Your task to perform on an android device: Play the last video I watched on Youtube Image 0: 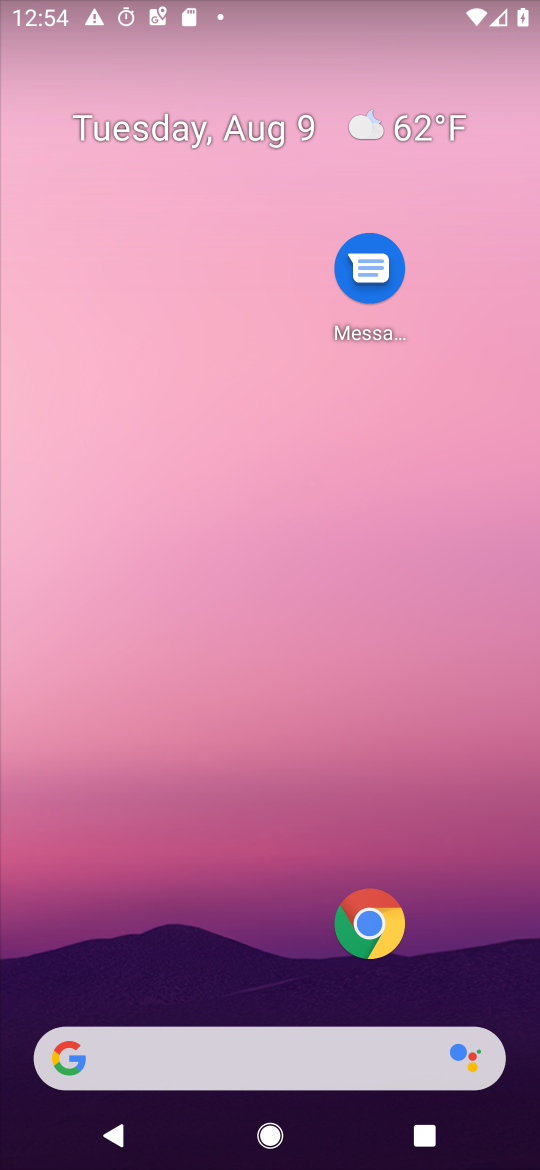
Step 0: drag from (97, 1108) to (196, 632)
Your task to perform on an android device: Play the last video I watched on Youtube Image 1: 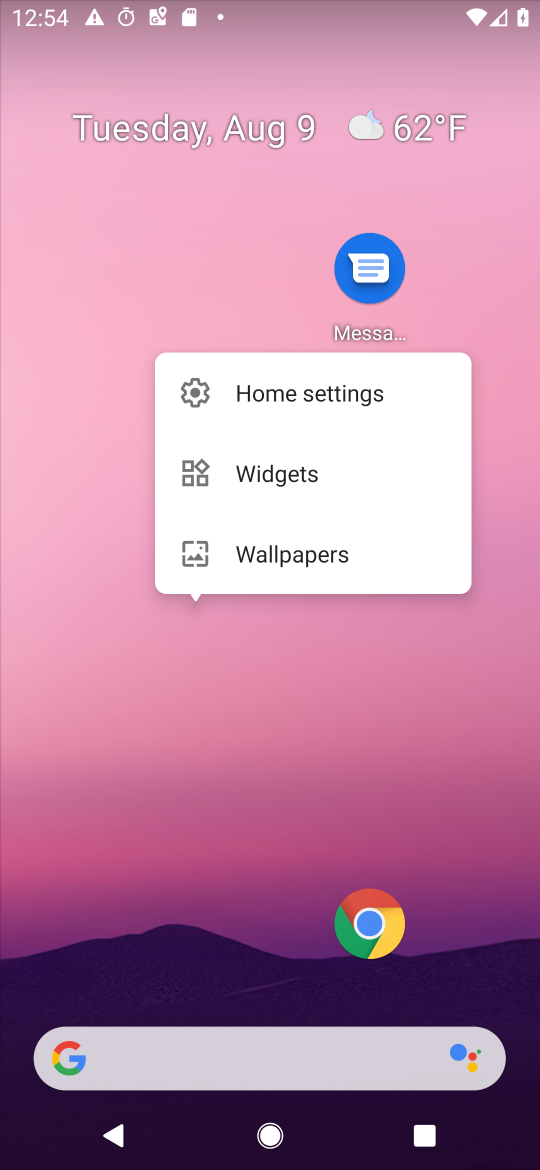
Step 1: task complete